Your task to perform on an android device: clear all cookies in the chrome app Image 0: 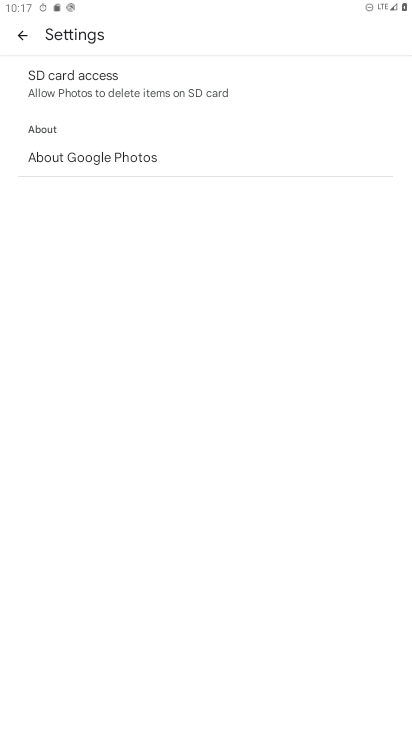
Step 0: press home button
Your task to perform on an android device: clear all cookies in the chrome app Image 1: 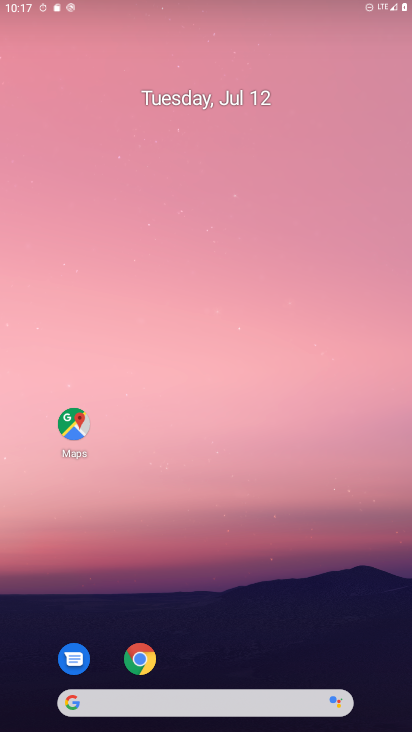
Step 1: drag from (381, 704) to (248, 71)
Your task to perform on an android device: clear all cookies in the chrome app Image 2: 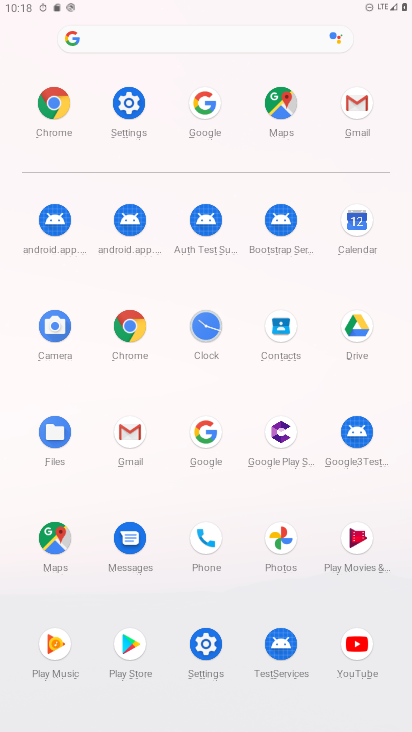
Step 2: click (121, 336)
Your task to perform on an android device: clear all cookies in the chrome app Image 3: 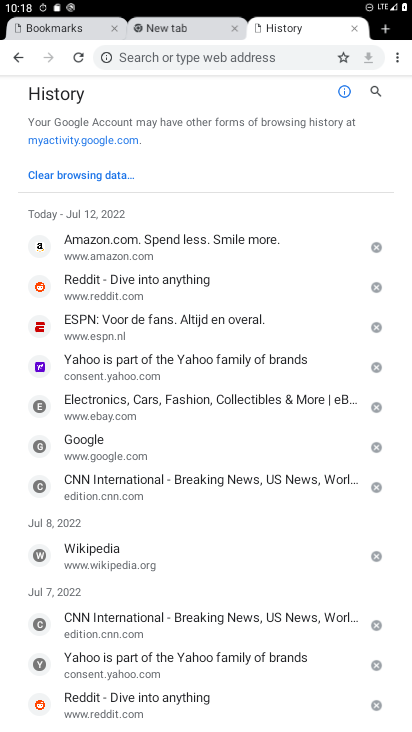
Step 3: click (395, 54)
Your task to perform on an android device: clear all cookies in the chrome app Image 4: 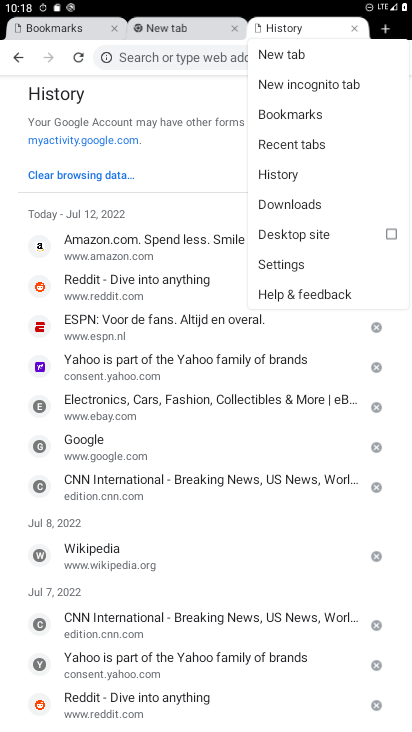
Step 4: click (303, 171)
Your task to perform on an android device: clear all cookies in the chrome app Image 5: 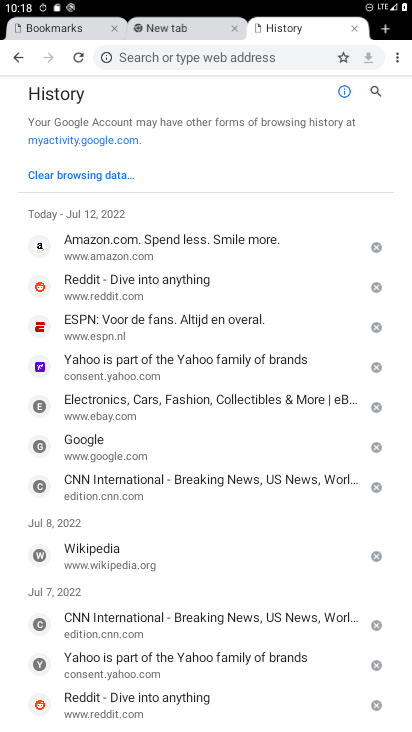
Step 5: click (60, 171)
Your task to perform on an android device: clear all cookies in the chrome app Image 6: 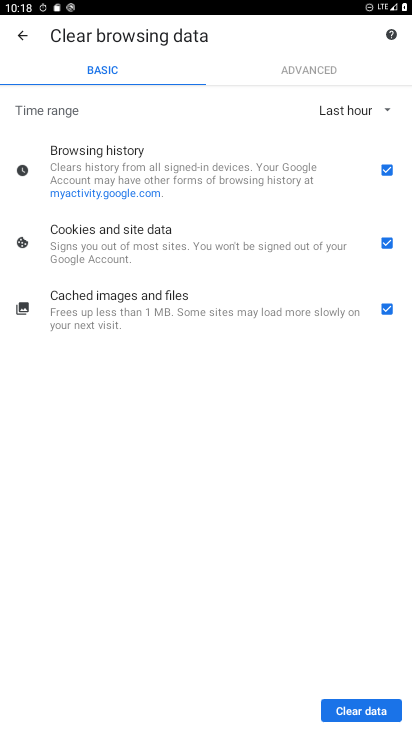
Step 6: click (359, 717)
Your task to perform on an android device: clear all cookies in the chrome app Image 7: 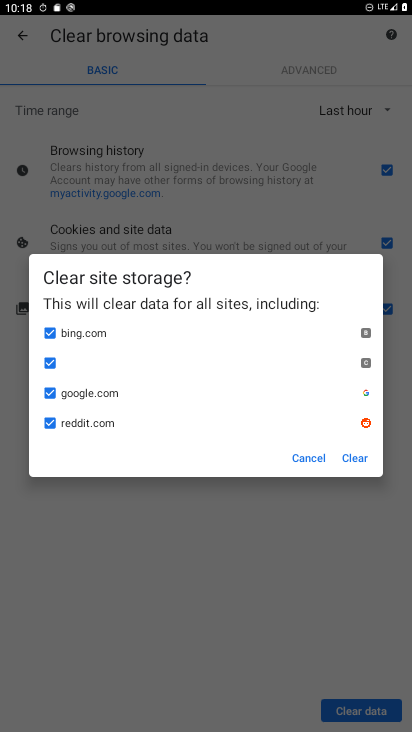
Step 7: click (358, 454)
Your task to perform on an android device: clear all cookies in the chrome app Image 8: 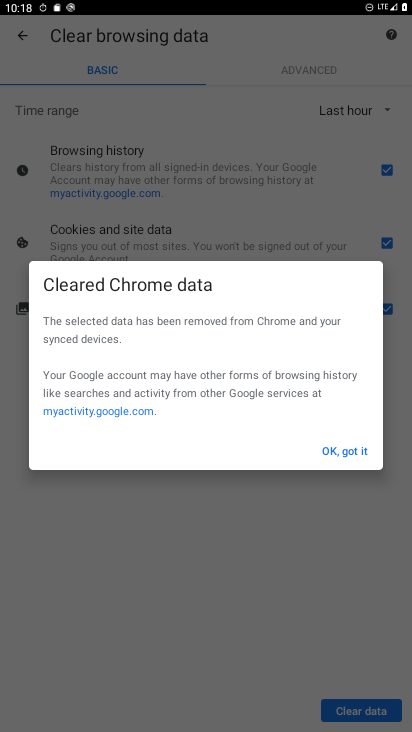
Step 8: click (360, 433)
Your task to perform on an android device: clear all cookies in the chrome app Image 9: 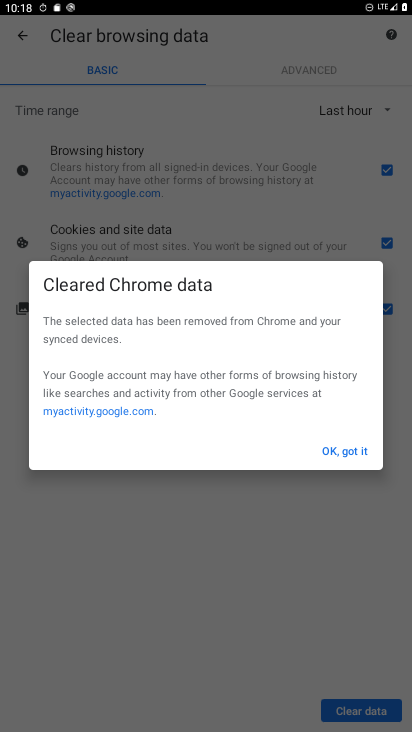
Step 9: click (367, 451)
Your task to perform on an android device: clear all cookies in the chrome app Image 10: 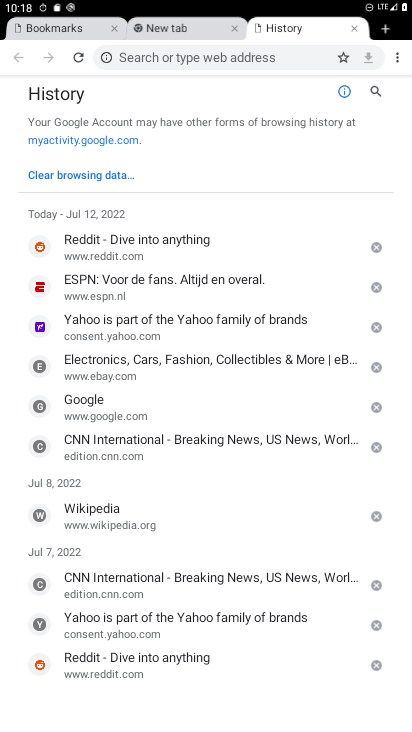
Step 10: task complete